Your task to perform on an android device: turn off priority inbox in the gmail app Image 0: 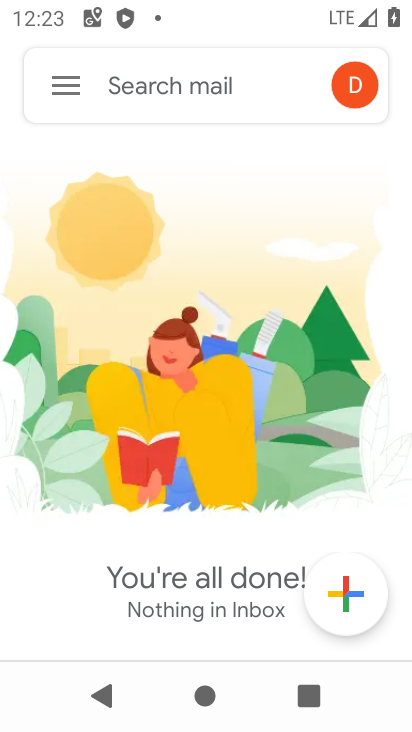
Step 0: press home button
Your task to perform on an android device: turn off priority inbox in the gmail app Image 1: 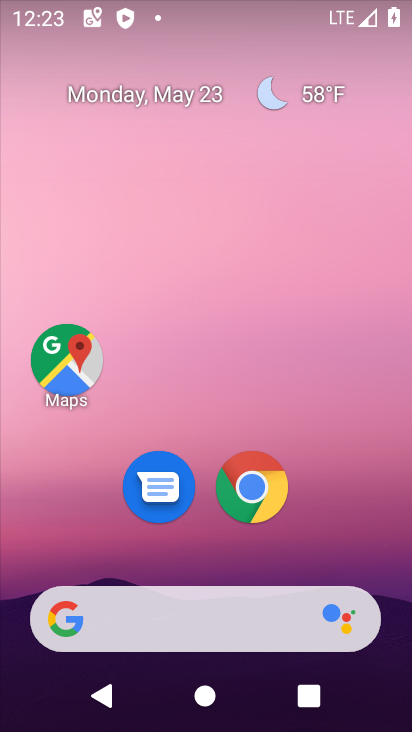
Step 1: drag from (396, 619) to (359, 51)
Your task to perform on an android device: turn off priority inbox in the gmail app Image 2: 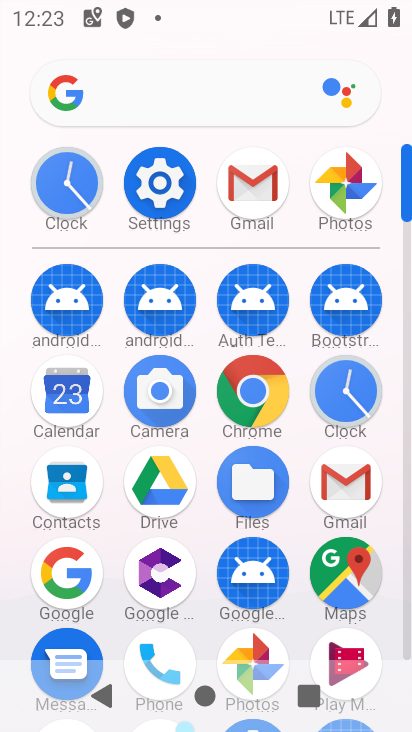
Step 2: click (409, 641)
Your task to perform on an android device: turn off priority inbox in the gmail app Image 3: 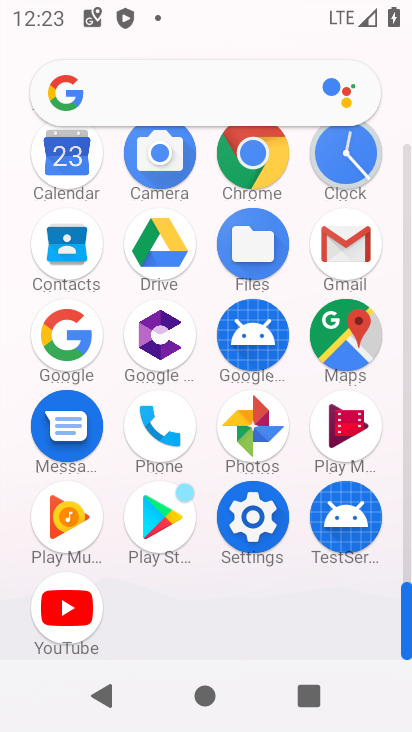
Step 3: click (343, 241)
Your task to perform on an android device: turn off priority inbox in the gmail app Image 4: 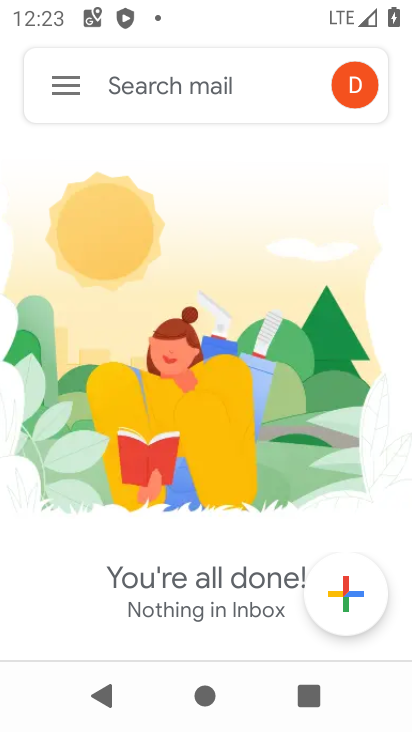
Step 4: click (58, 82)
Your task to perform on an android device: turn off priority inbox in the gmail app Image 5: 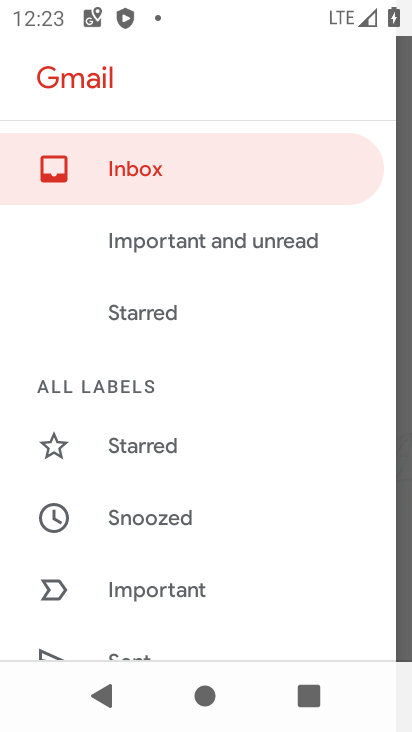
Step 5: drag from (226, 620) to (270, 263)
Your task to perform on an android device: turn off priority inbox in the gmail app Image 6: 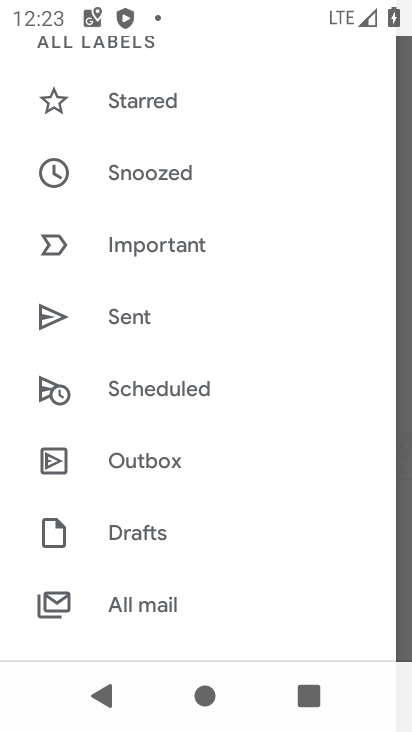
Step 6: drag from (209, 642) to (282, 140)
Your task to perform on an android device: turn off priority inbox in the gmail app Image 7: 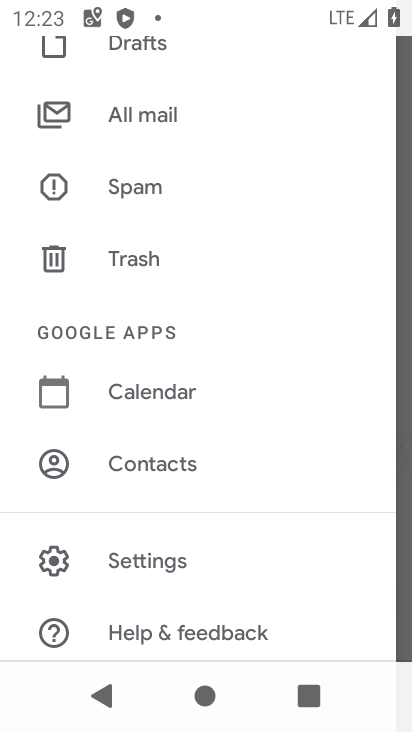
Step 7: click (120, 573)
Your task to perform on an android device: turn off priority inbox in the gmail app Image 8: 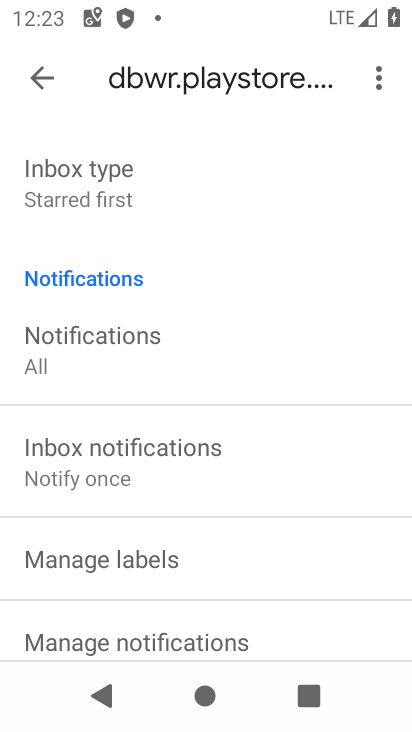
Step 8: drag from (287, 626) to (245, 165)
Your task to perform on an android device: turn off priority inbox in the gmail app Image 9: 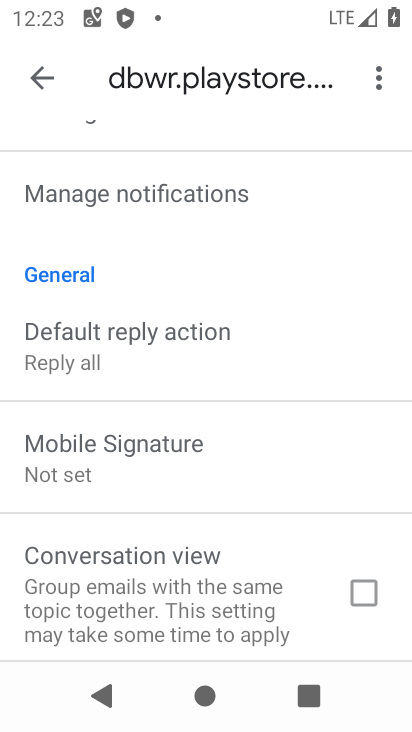
Step 9: drag from (302, 212) to (303, 661)
Your task to perform on an android device: turn off priority inbox in the gmail app Image 10: 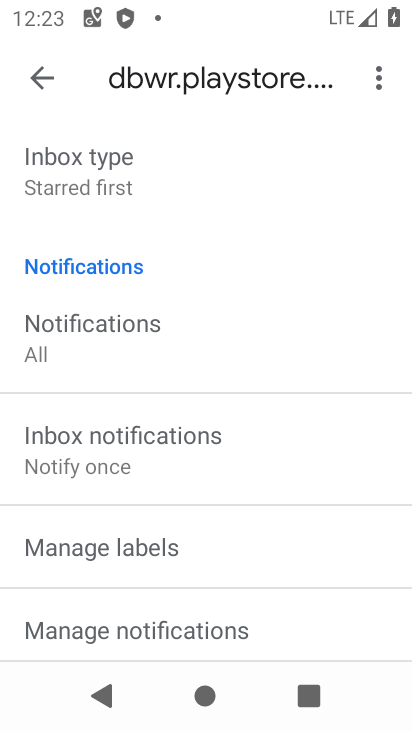
Step 10: drag from (252, 269) to (224, 585)
Your task to perform on an android device: turn off priority inbox in the gmail app Image 11: 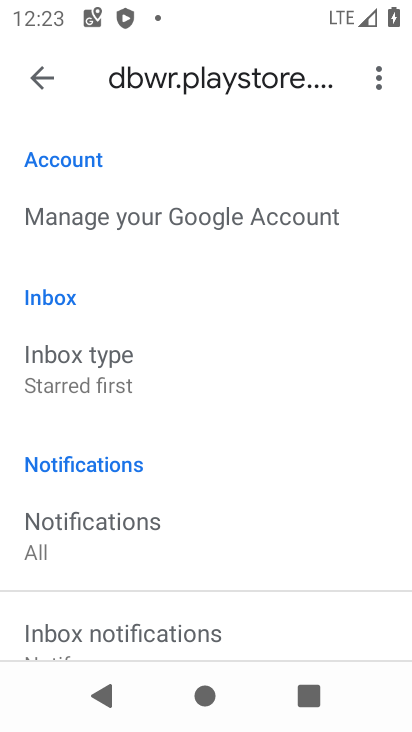
Step 11: click (62, 363)
Your task to perform on an android device: turn off priority inbox in the gmail app Image 12: 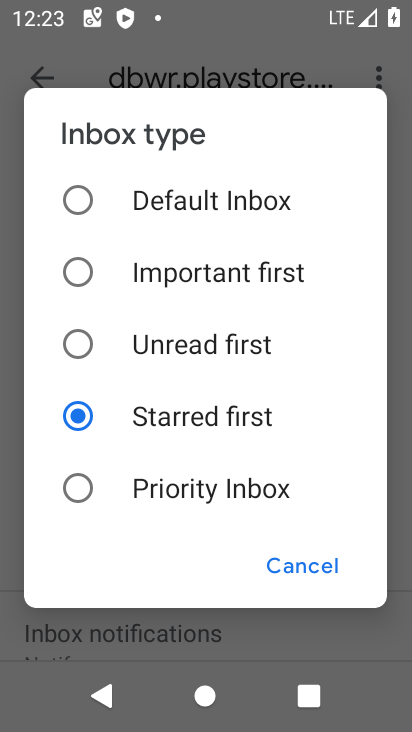
Step 12: click (87, 193)
Your task to perform on an android device: turn off priority inbox in the gmail app Image 13: 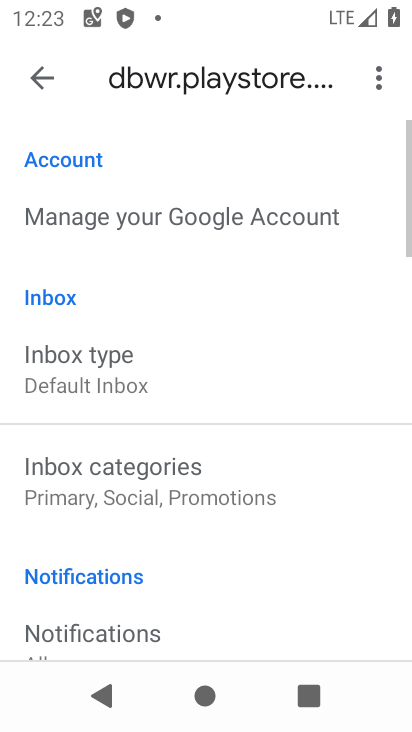
Step 13: task complete